Your task to perform on an android device: What is the recent news? Image 0: 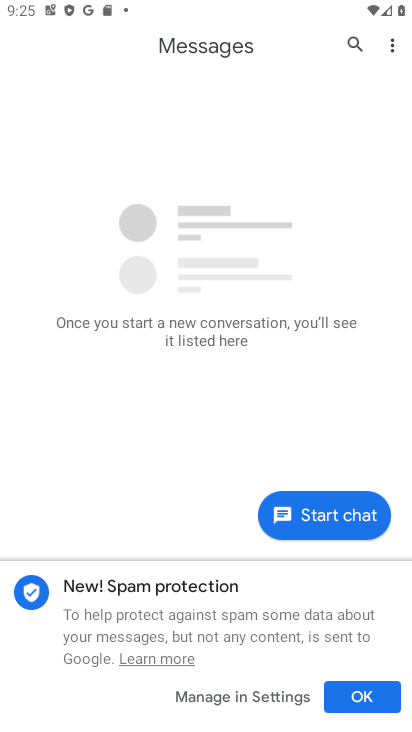
Step 0: press home button
Your task to perform on an android device: What is the recent news? Image 1: 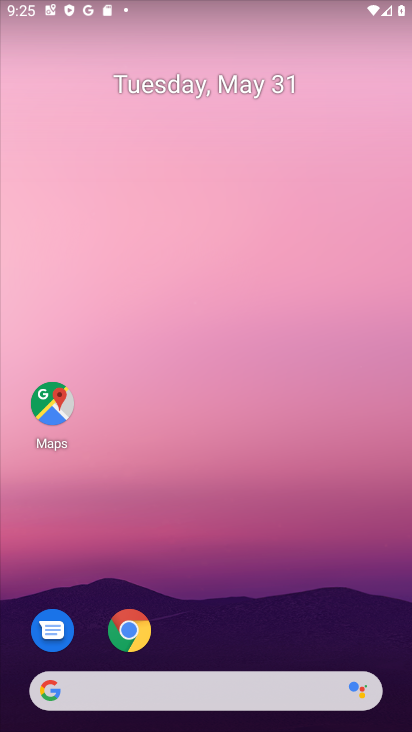
Step 1: click (171, 695)
Your task to perform on an android device: What is the recent news? Image 2: 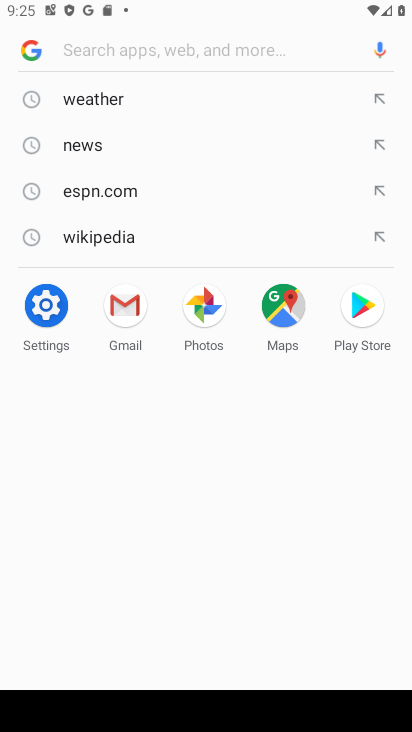
Step 2: click (118, 159)
Your task to perform on an android device: What is the recent news? Image 3: 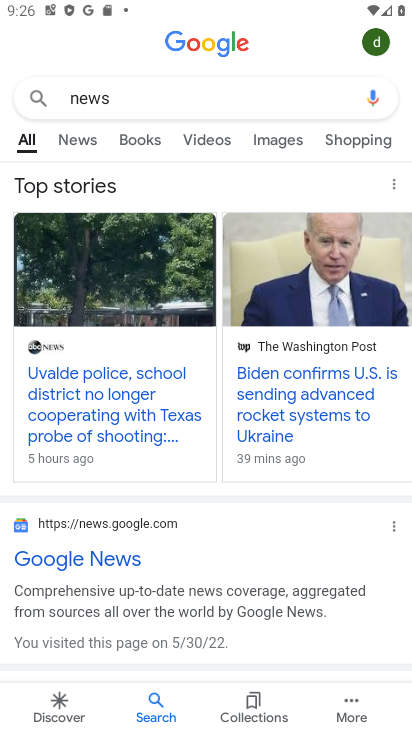
Step 3: task complete